Your task to perform on an android device: Open Youtube and go to "Your channel" Image 0: 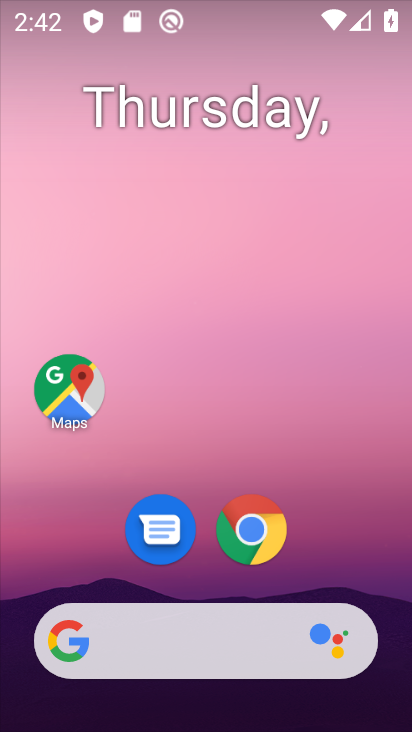
Step 0: drag from (207, 580) to (278, 12)
Your task to perform on an android device: Open Youtube and go to "Your channel" Image 1: 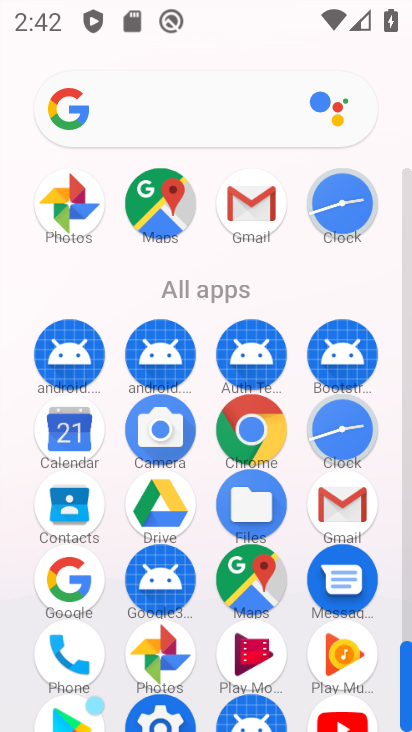
Step 1: drag from (293, 574) to (306, 290)
Your task to perform on an android device: Open Youtube and go to "Your channel" Image 2: 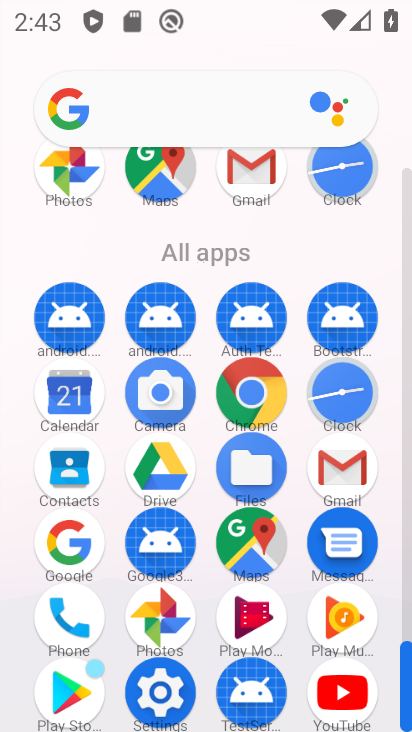
Step 2: click (349, 693)
Your task to perform on an android device: Open Youtube and go to "Your channel" Image 3: 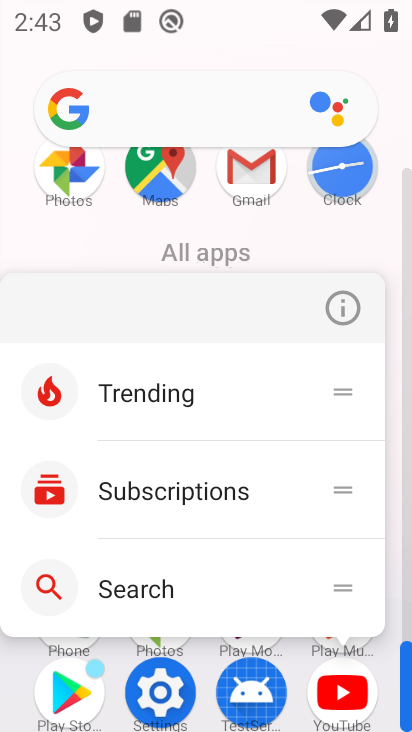
Step 3: click (348, 692)
Your task to perform on an android device: Open Youtube and go to "Your channel" Image 4: 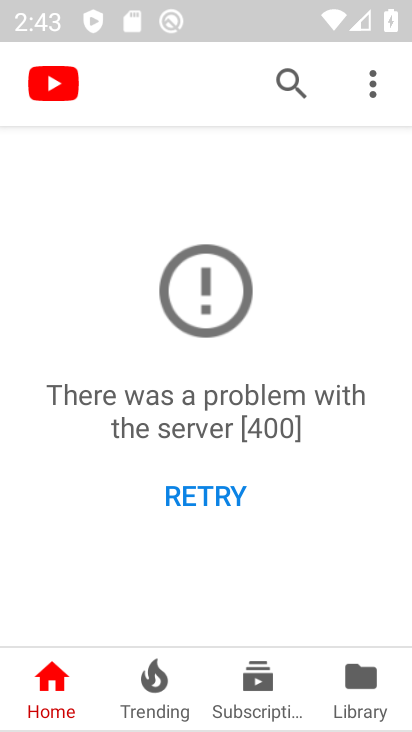
Step 4: click (351, 688)
Your task to perform on an android device: Open Youtube and go to "Your channel" Image 5: 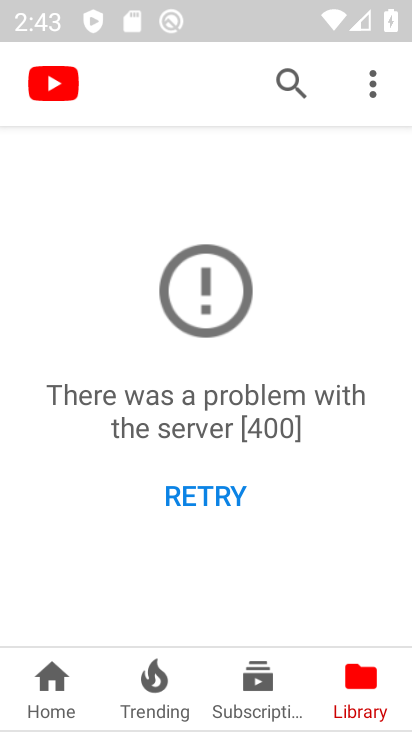
Step 5: click (375, 94)
Your task to perform on an android device: Open Youtube and go to "Your channel" Image 6: 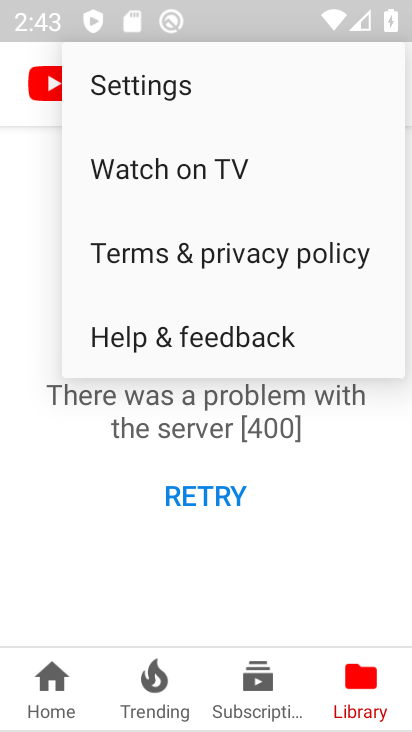
Step 6: click (156, 87)
Your task to perform on an android device: Open Youtube and go to "Your channel" Image 7: 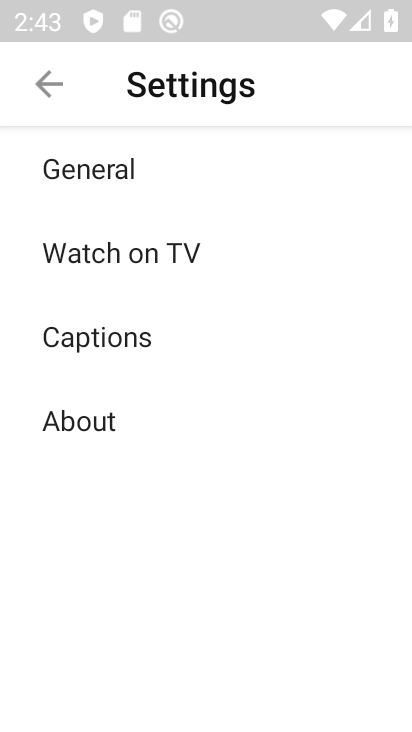
Step 7: click (123, 162)
Your task to perform on an android device: Open Youtube and go to "Your channel" Image 8: 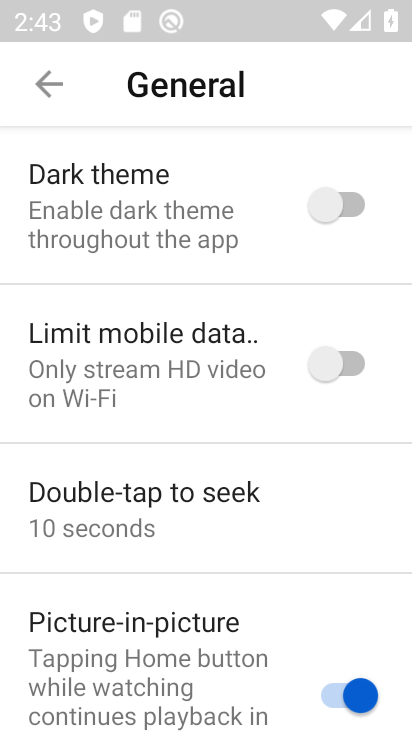
Step 8: task complete